Your task to perform on an android device: set the stopwatch Image 0: 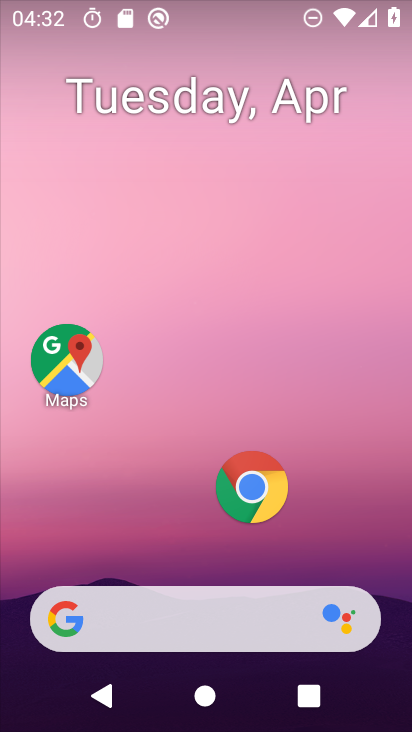
Step 0: drag from (181, 572) to (296, 8)
Your task to perform on an android device: set the stopwatch Image 1: 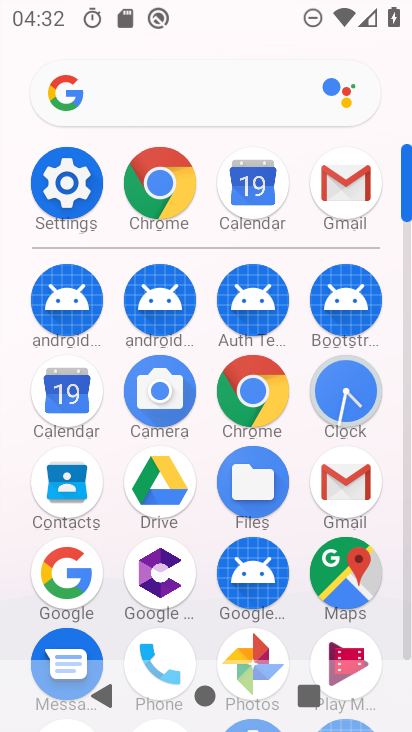
Step 1: click (345, 395)
Your task to perform on an android device: set the stopwatch Image 2: 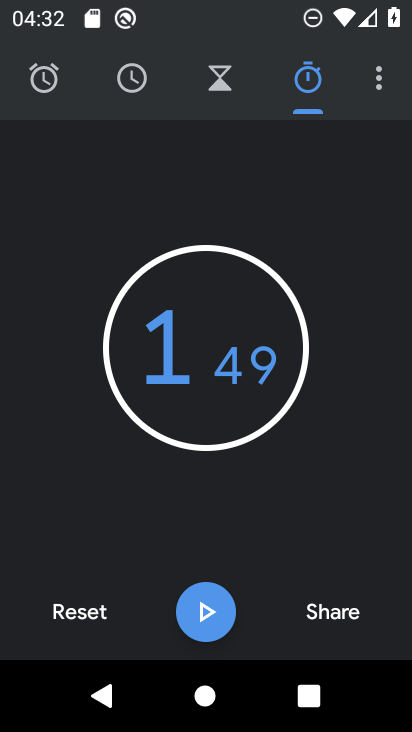
Step 2: click (219, 343)
Your task to perform on an android device: set the stopwatch Image 3: 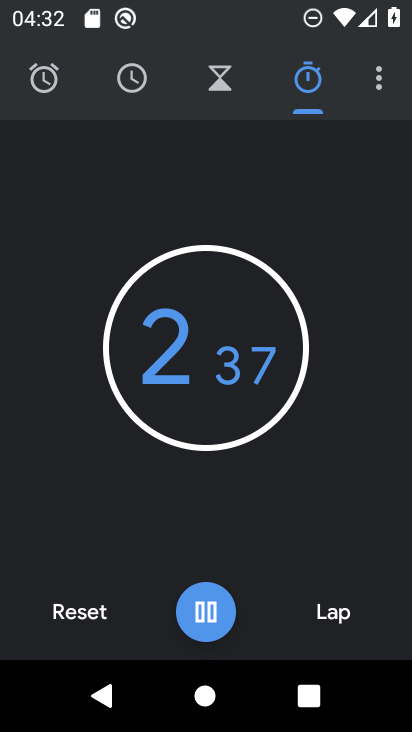
Step 3: click (219, 343)
Your task to perform on an android device: set the stopwatch Image 4: 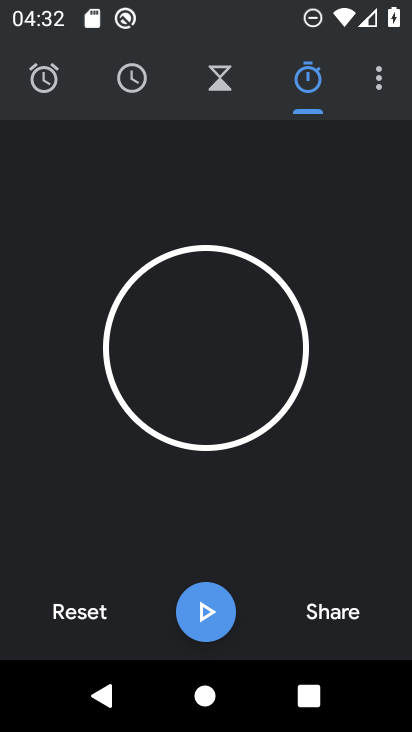
Step 4: task complete